Your task to perform on an android device: toggle location history Image 0: 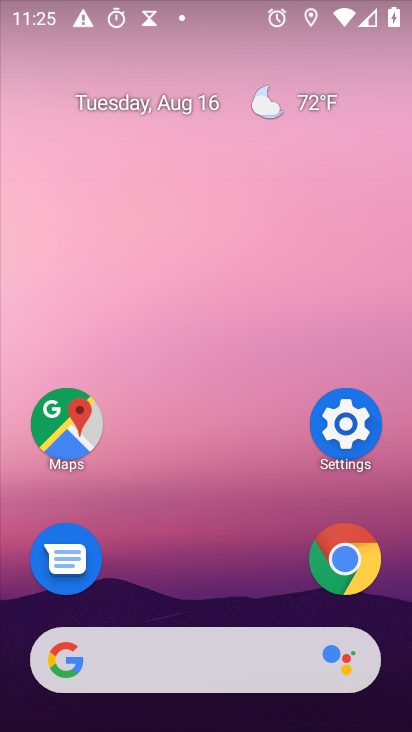
Step 0: press home button
Your task to perform on an android device: toggle location history Image 1: 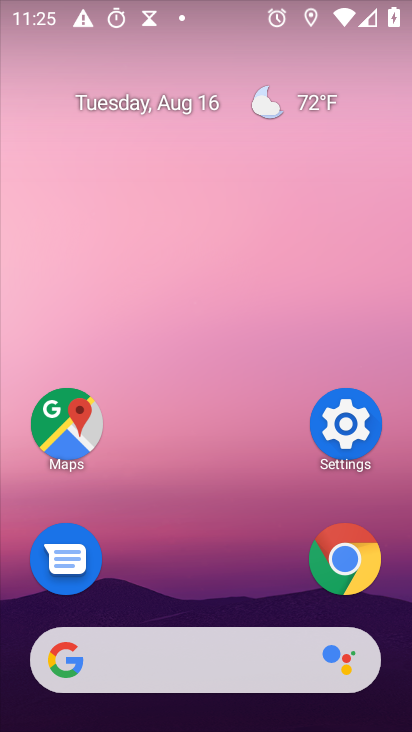
Step 1: click (68, 442)
Your task to perform on an android device: toggle location history Image 2: 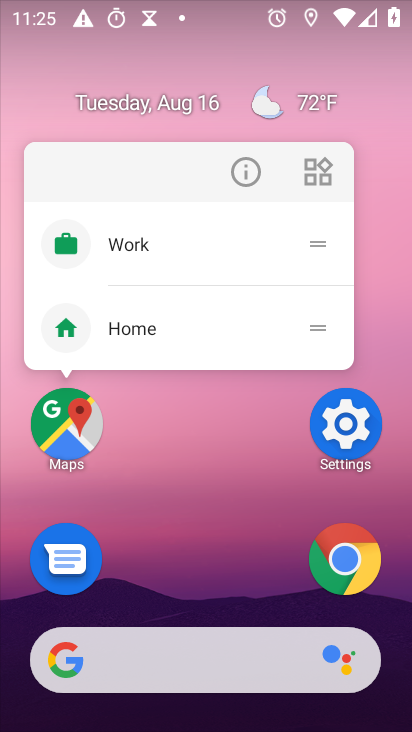
Step 2: click (60, 426)
Your task to perform on an android device: toggle location history Image 3: 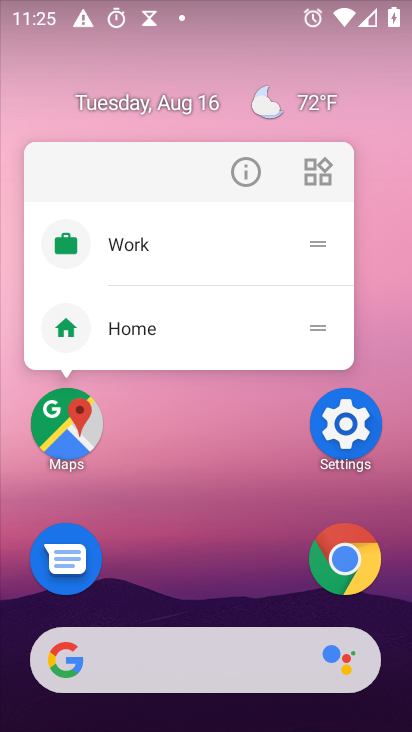
Step 3: click (60, 424)
Your task to perform on an android device: toggle location history Image 4: 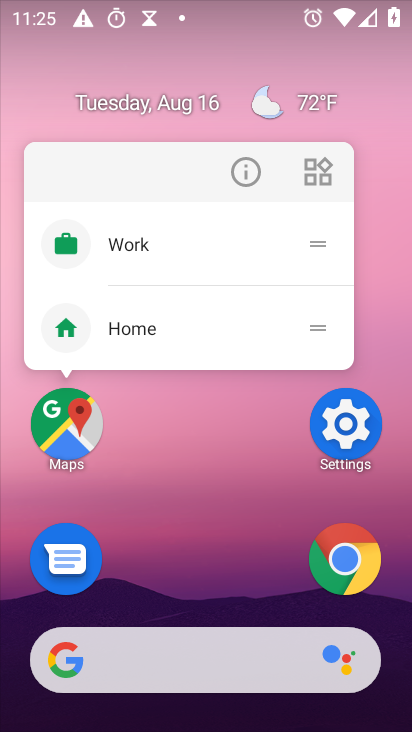
Step 4: click (60, 427)
Your task to perform on an android device: toggle location history Image 5: 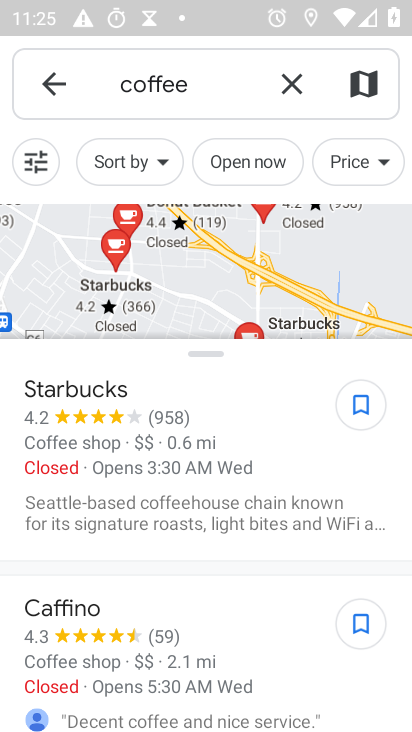
Step 5: press back button
Your task to perform on an android device: toggle location history Image 6: 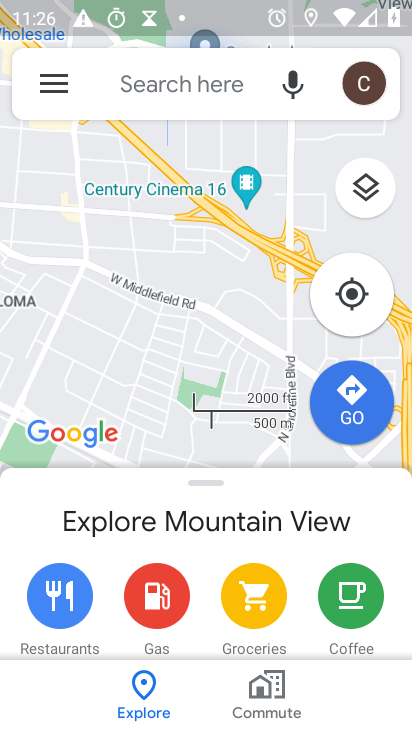
Step 6: click (52, 80)
Your task to perform on an android device: toggle location history Image 7: 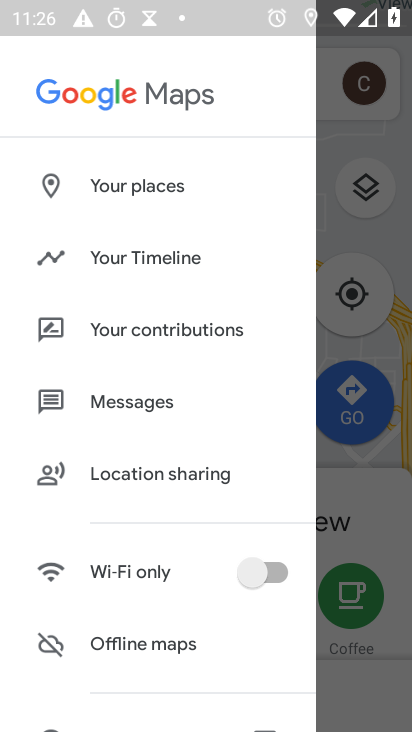
Step 7: click (151, 247)
Your task to perform on an android device: toggle location history Image 8: 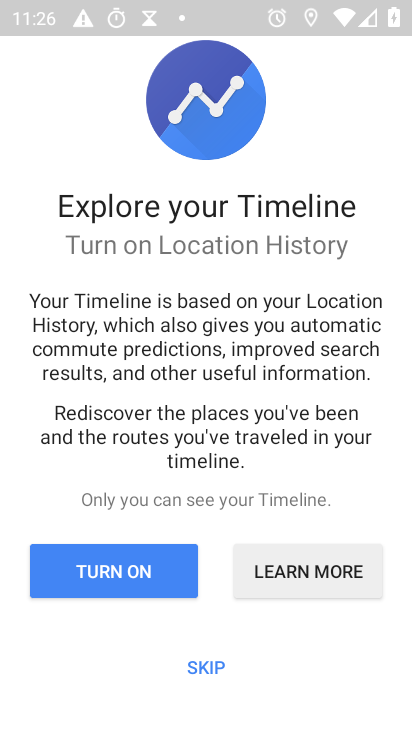
Step 8: click (196, 667)
Your task to perform on an android device: toggle location history Image 9: 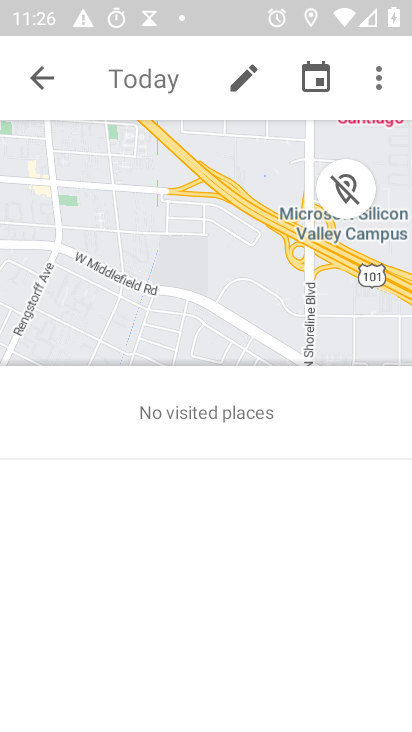
Step 9: click (379, 78)
Your task to perform on an android device: toggle location history Image 10: 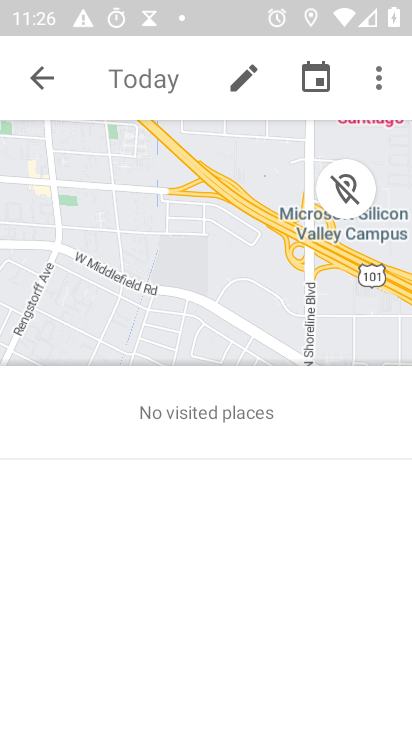
Step 10: click (376, 82)
Your task to perform on an android device: toggle location history Image 11: 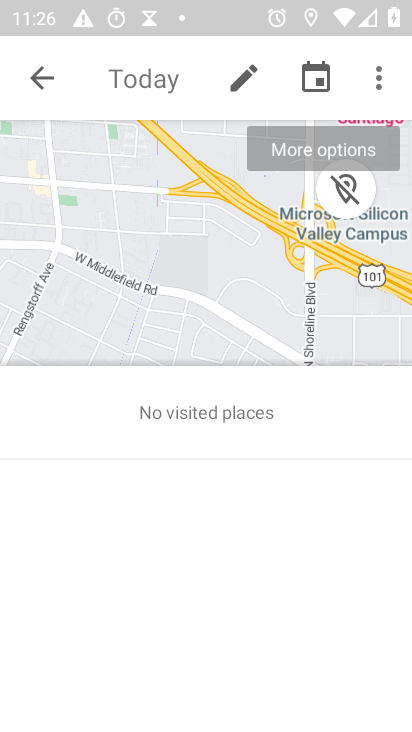
Step 11: click (380, 80)
Your task to perform on an android device: toggle location history Image 12: 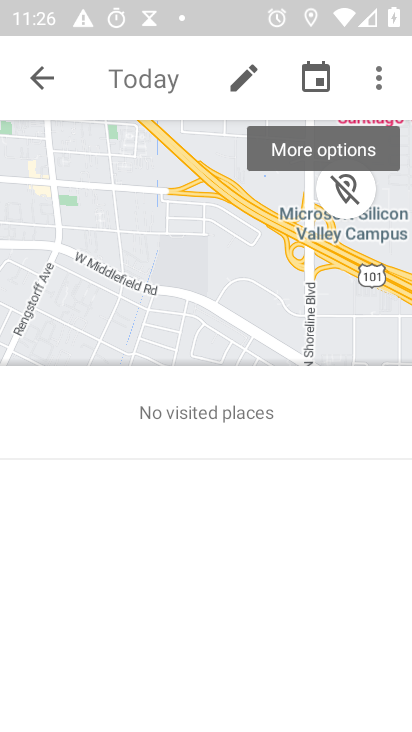
Step 12: click (377, 91)
Your task to perform on an android device: toggle location history Image 13: 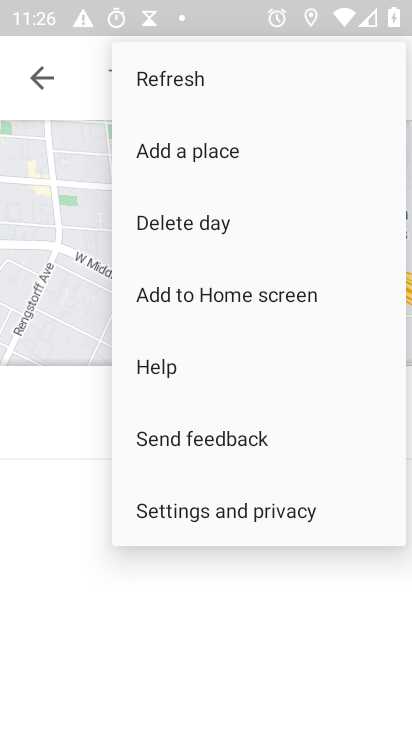
Step 13: click (264, 515)
Your task to perform on an android device: toggle location history Image 14: 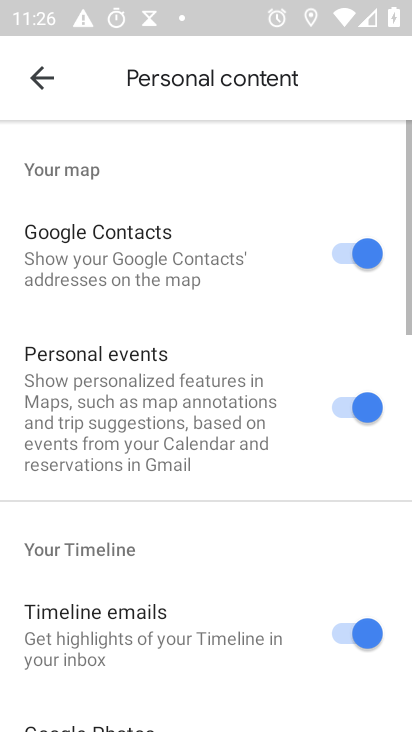
Step 14: drag from (171, 650) to (289, 74)
Your task to perform on an android device: toggle location history Image 15: 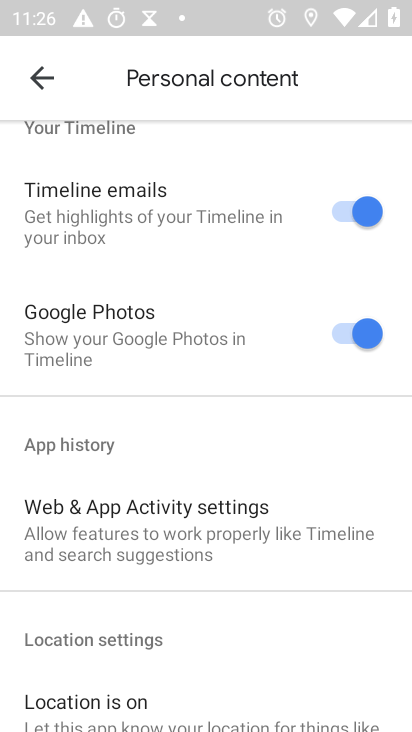
Step 15: drag from (221, 561) to (321, 70)
Your task to perform on an android device: toggle location history Image 16: 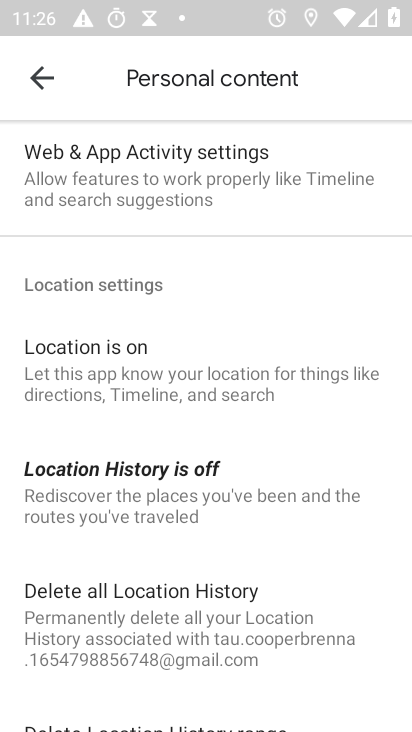
Step 16: click (185, 481)
Your task to perform on an android device: toggle location history Image 17: 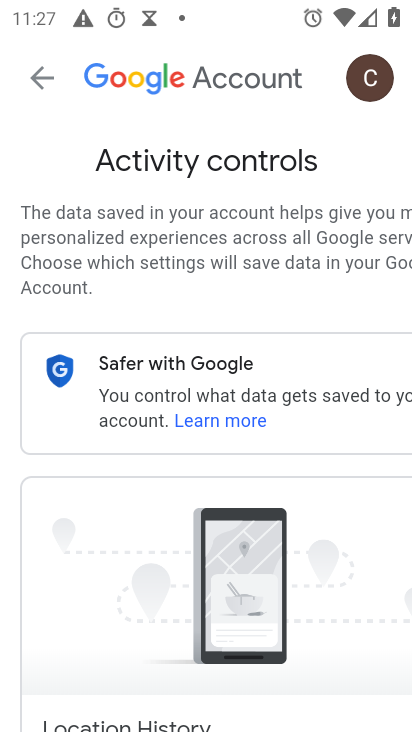
Step 17: drag from (144, 562) to (230, 42)
Your task to perform on an android device: toggle location history Image 18: 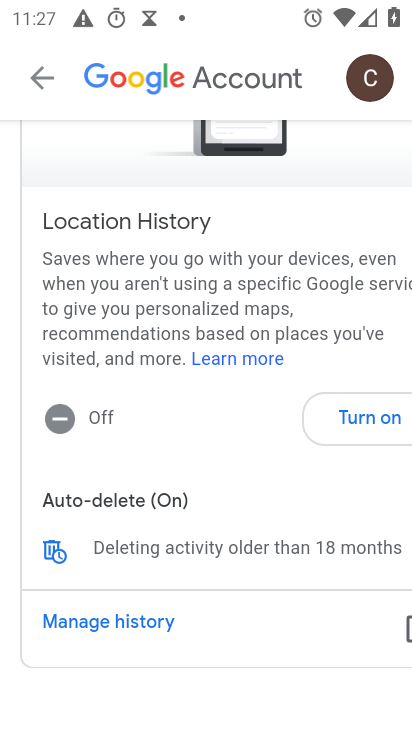
Step 18: click (356, 414)
Your task to perform on an android device: toggle location history Image 19: 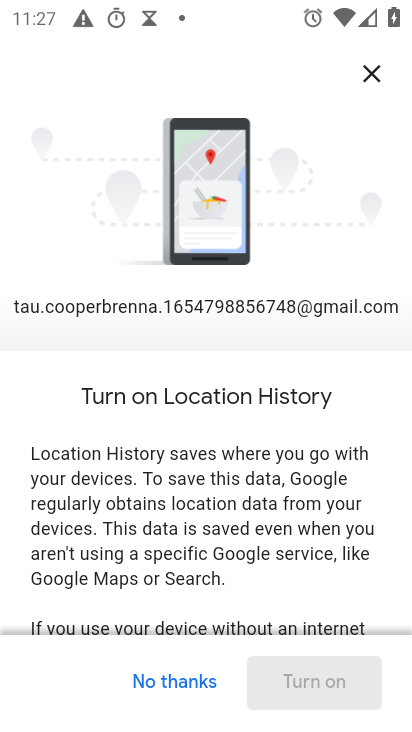
Step 19: drag from (242, 510) to (293, 16)
Your task to perform on an android device: toggle location history Image 20: 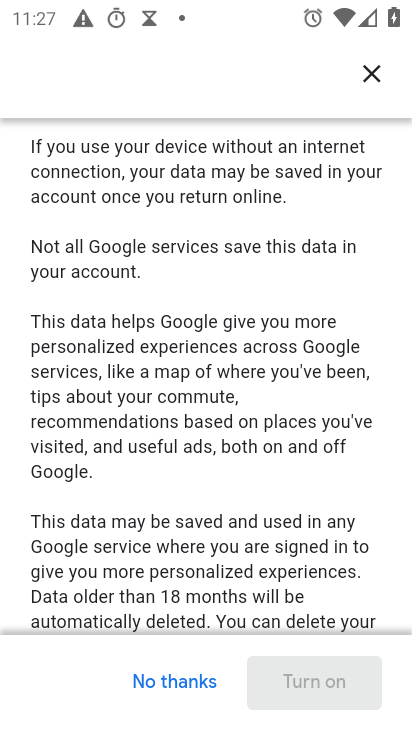
Step 20: drag from (204, 567) to (289, 30)
Your task to perform on an android device: toggle location history Image 21: 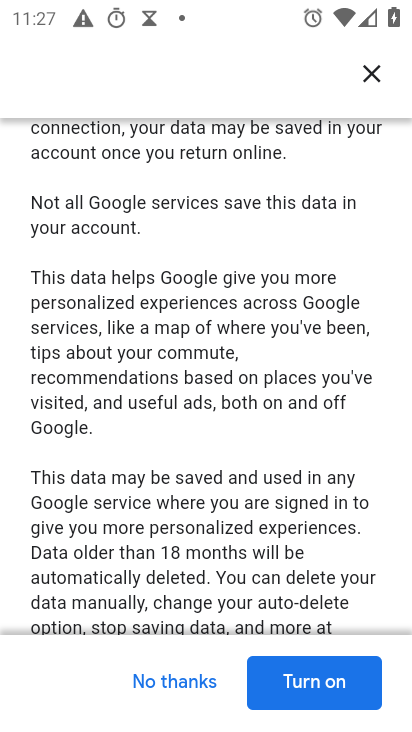
Step 21: click (319, 680)
Your task to perform on an android device: toggle location history Image 22: 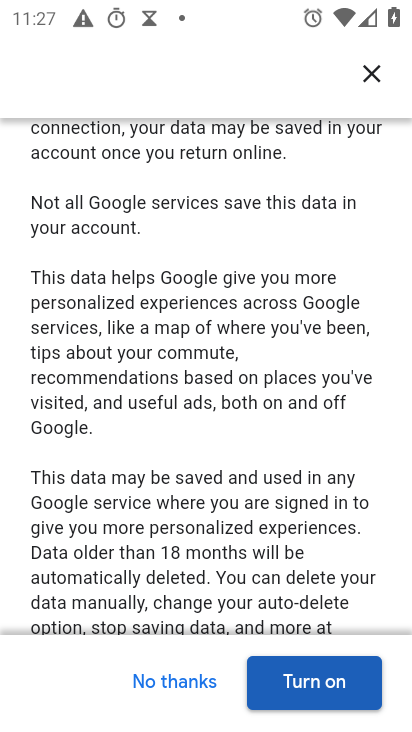
Step 22: click (319, 677)
Your task to perform on an android device: toggle location history Image 23: 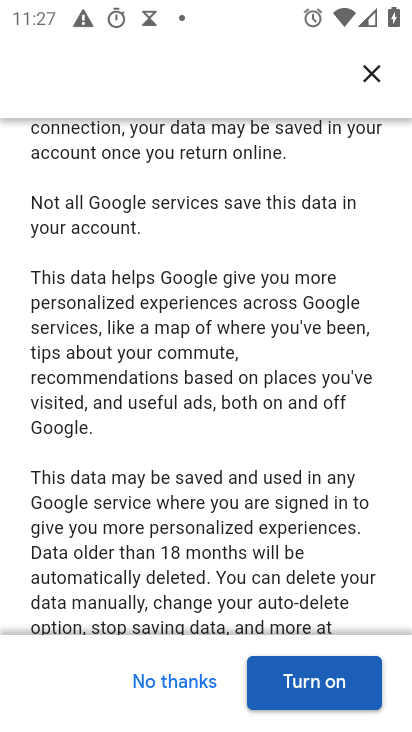
Step 23: click (319, 683)
Your task to perform on an android device: toggle location history Image 24: 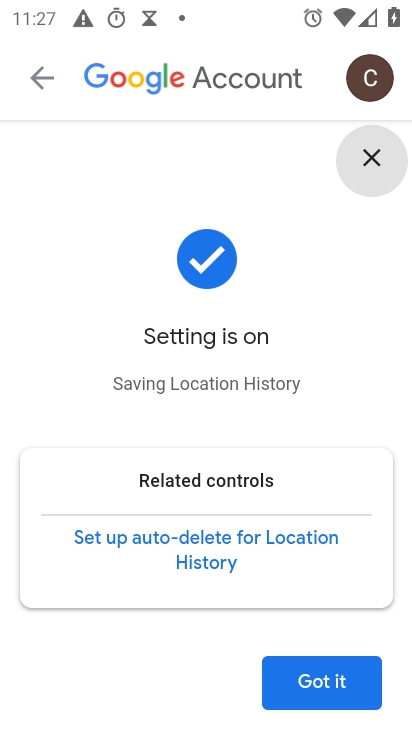
Step 24: click (319, 683)
Your task to perform on an android device: toggle location history Image 25: 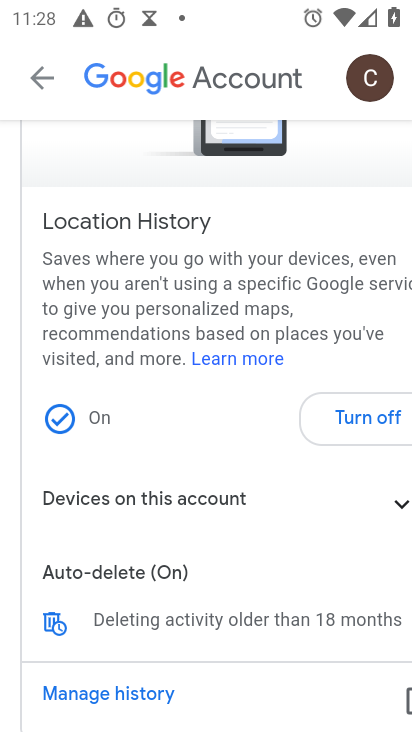
Step 25: task complete